Your task to perform on an android device: Open the Play Movies app and select the watchlist tab. Image 0: 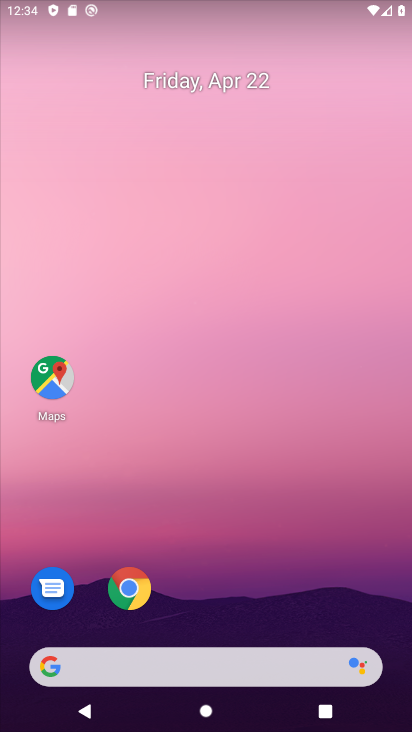
Step 0: drag from (321, 591) to (334, 187)
Your task to perform on an android device: Open the Play Movies app and select the watchlist tab. Image 1: 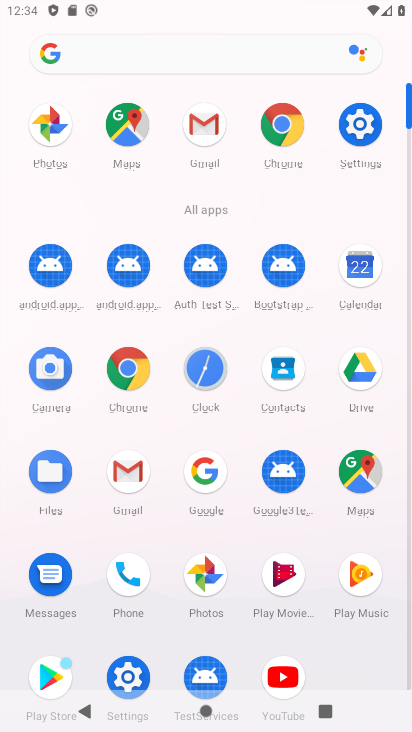
Step 1: click (282, 572)
Your task to perform on an android device: Open the Play Movies app and select the watchlist tab. Image 2: 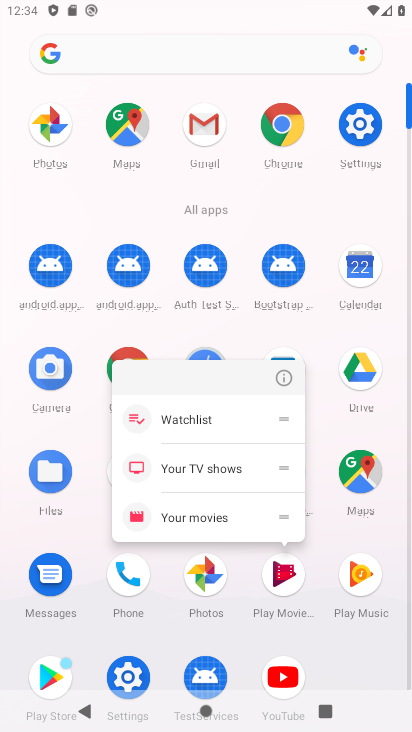
Step 2: click (282, 571)
Your task to perform on an android device: Open the Play Movies app and select the watchlist tab. Image 3: 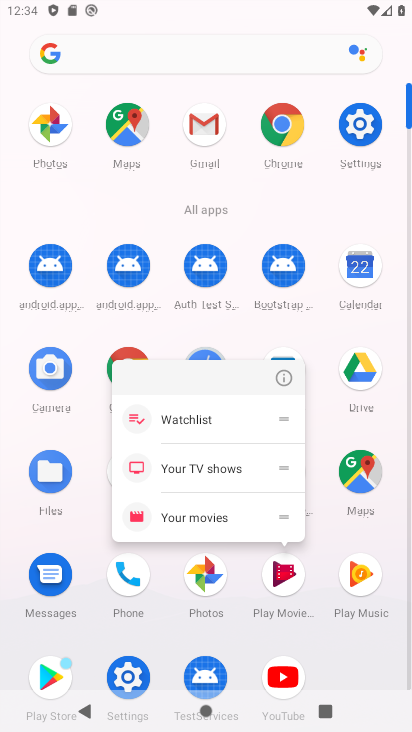
Step 3: click (282, 597)
Your task to perform on an android device: Open the Play Movies app and select the watchlist tab. Image 4: 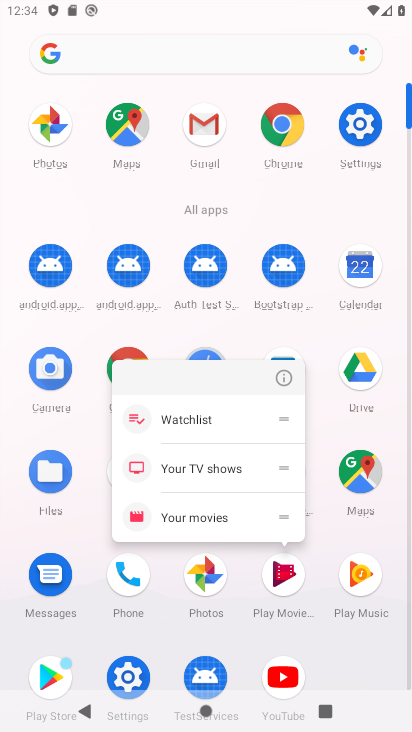
Step 4: click (286, 580)
Your task to perform on an android device: Open the Play Movies app and select the watchlist tab. Image 5: 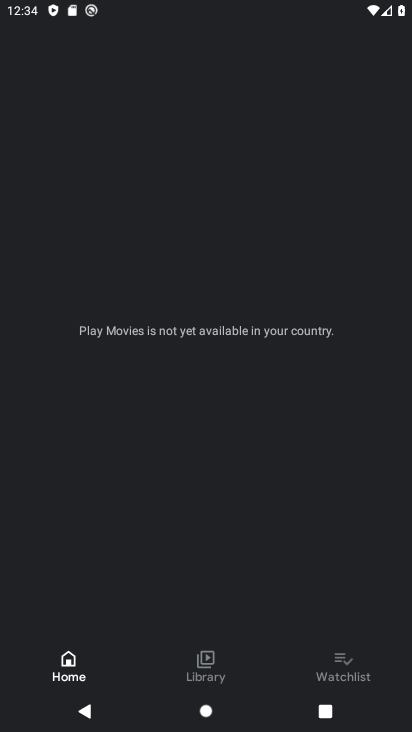
Step 5: click (334, 661)
Your task to perform on an android device: Open the Play Movies app and select the watchlist tab. Image 6: 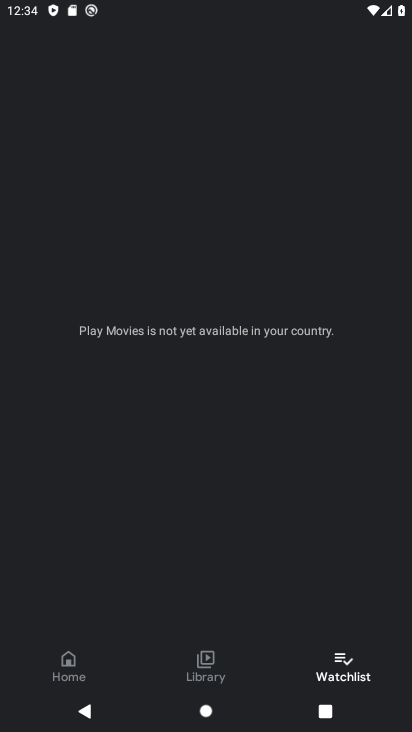
Step 6: task complete